Your task to perform on an android device: check google app version Image 0: 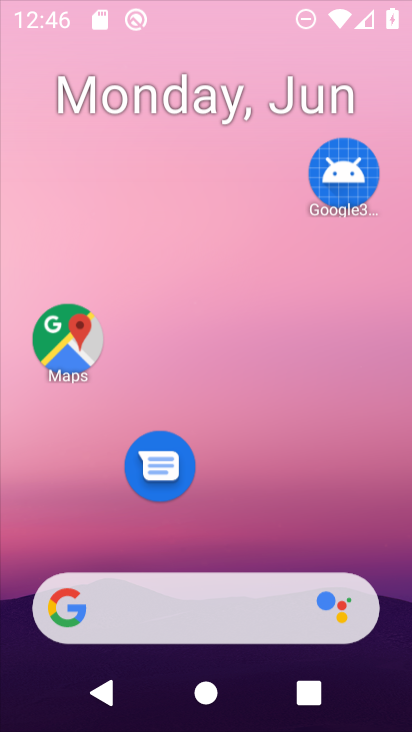
Step 0: press home button
Your task to perform on an android device: check google app version Image 1: 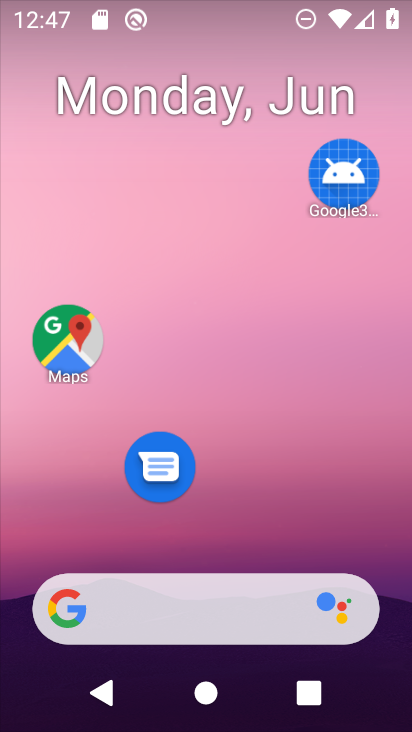
Step 1: drag from (122, 726) to (406, 179)
Your task to perform on an android device: check google app version Image 2: 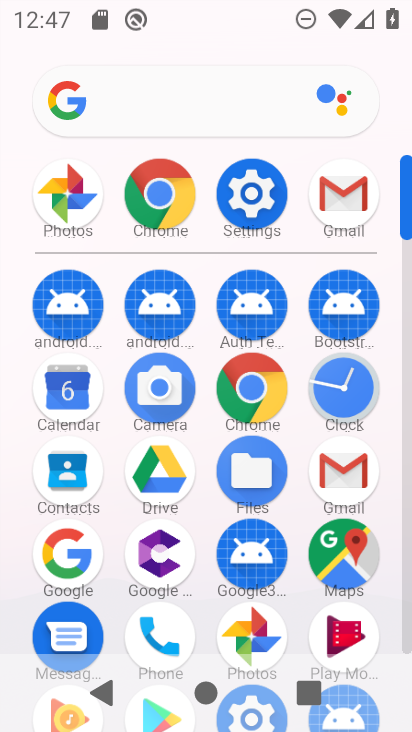
Step 2: click (65, 558)
Your task to perform on an android device: check google app version Image 3: 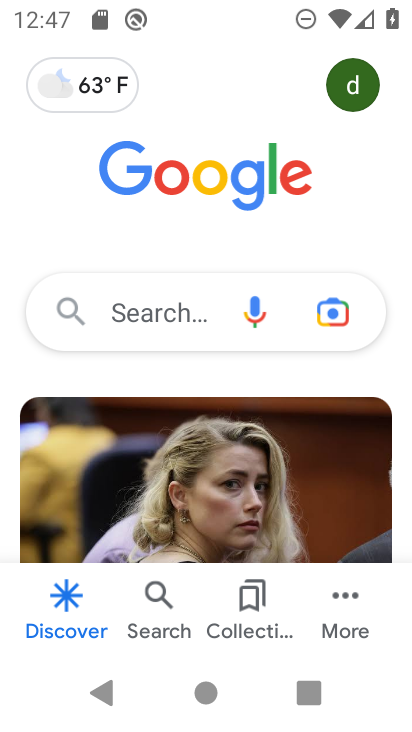
Step 3: click (320, 599)
Your task to perform on an android device: check google app version Image 4: 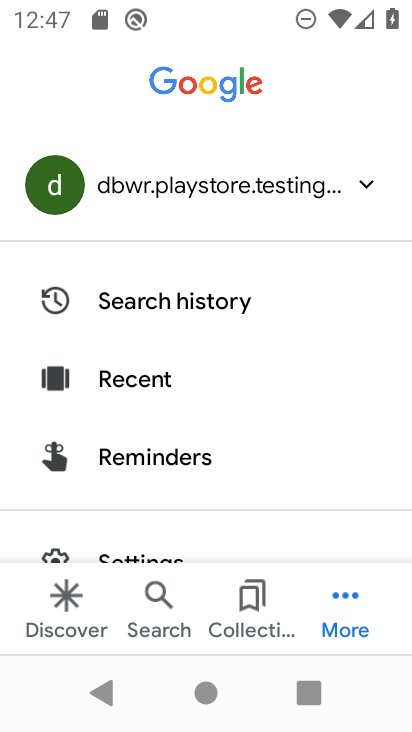
Step 4: drag from (160, 532) to (166, 132)
Your task to perform on an android device: check google app version Image 5: 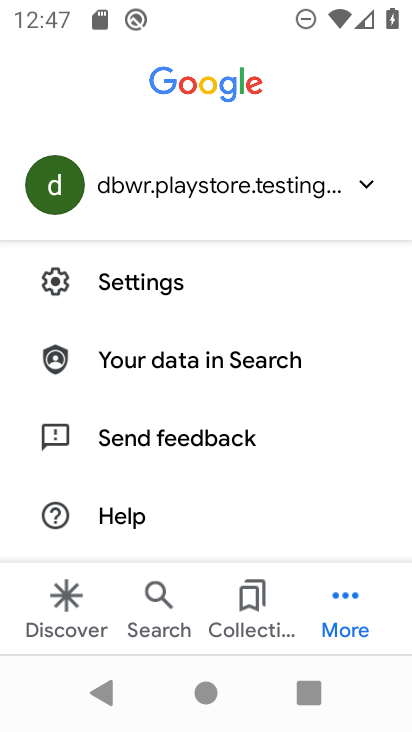
Step 5: click (164, 277)
Your task to perform on an android device: check google app version Image 6: 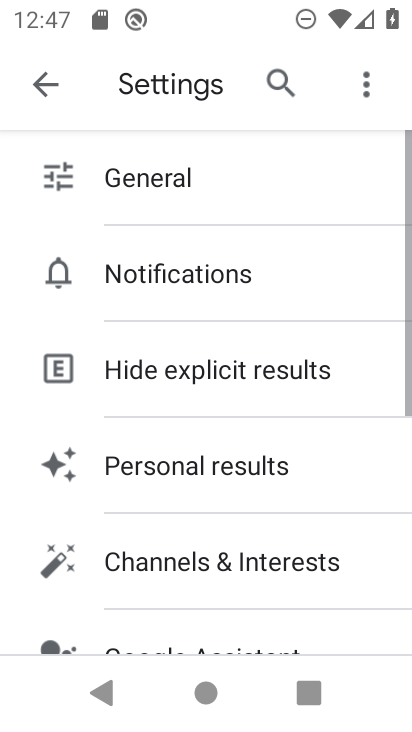
Step 6: drag from (189, 618) to (182, 155)
Your task to perform on an android device: check google app version Image 7: 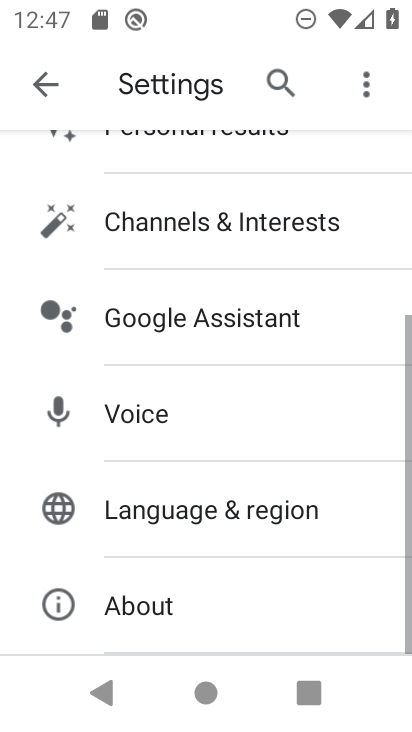
Step 7: click (153, 590)
Your task to perform on an android device: check google app version Image 8: 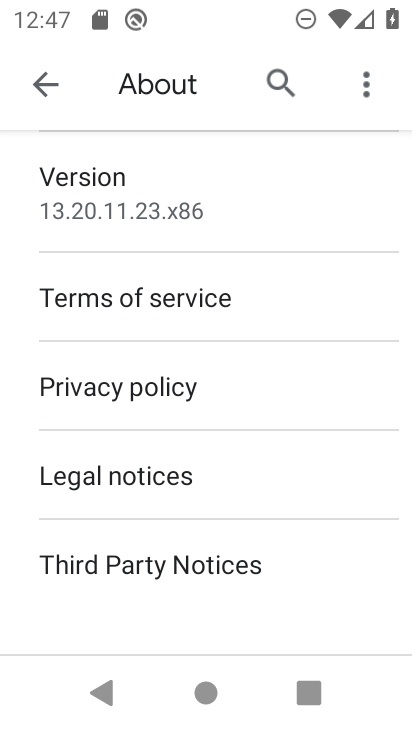
Step 8: task complete